Your task to perform on an android device: Clear the shopping cart on ebay. Search for macbook pro on ebay, select the first entry, add it to the cart, then select checkout. Image 0: 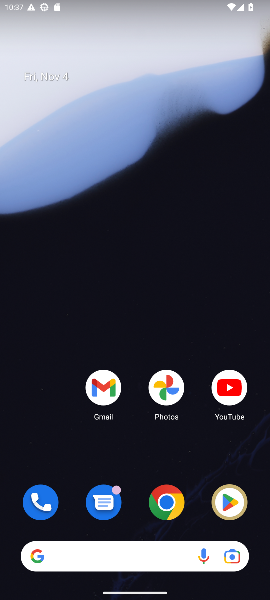
Step 0: drag from (150, 455) to (129, 69)
Your task to perform on an android device: Clear the shopping cart on ebay. Search for macbook pro on ebay, select the first entry, add it to the cart, then select checkout. Image 1: 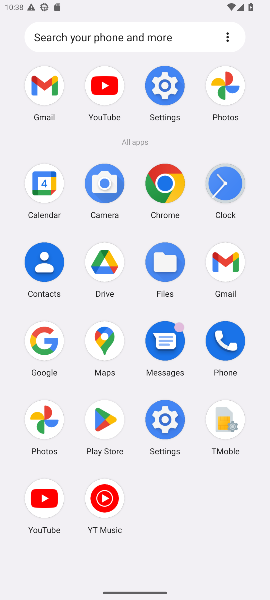
Step 1: click (164, 181)
Your task to perform on an android device: Clear the shopping cart on ebay. Search for macbook pro on ebay, select the first entry, add it to the cart, then select checkout. Image 2: 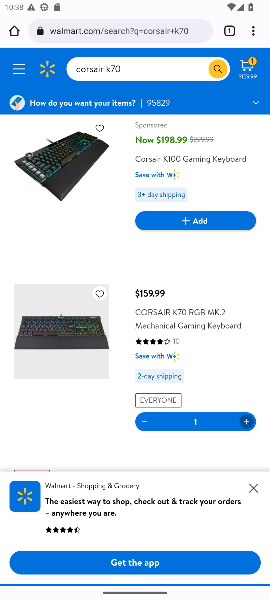
Step 2: click (175, 31)
Your task to perform on an android device: Clear the shopping cart on ebay. Search for macbook pro on ebay, select the first entry, add it to the cart, then select checkout. Image 3: 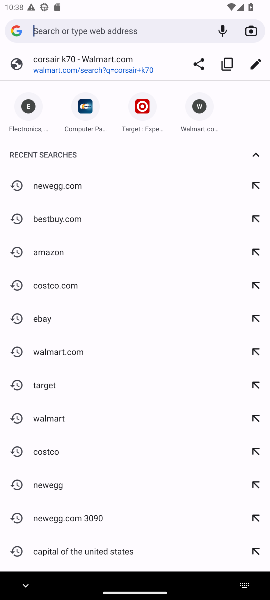
Step 3: type "ebay.com"
Your task to perform on an android device: Clear the shopping cart on ebay. Search for macbook pro on ebay, select the first entry, add it to the cart, then select checkout. Image 4: 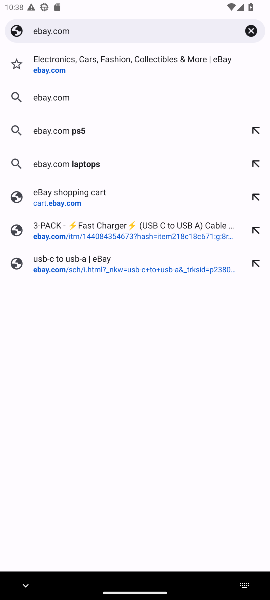
Step 4: press enter
Your task to perform on an android device: Clear the shopping cart on ebay. Search for macbook pro on ebay, select the first entry, add it to the cart, then select checkout. Image 5: 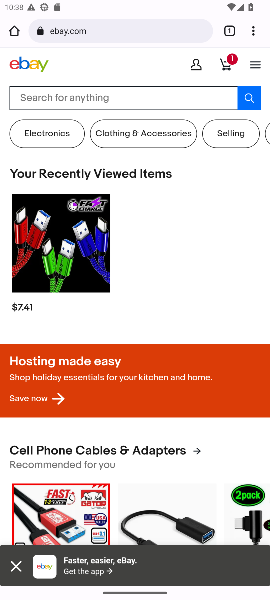
Step 5: click (228, 60)
Your task to perform on an android device: Clear the shopping cart on ebay. Search for macbook pro on ebay, select the first entry, add it to the cart, then select checkout. Image 6: 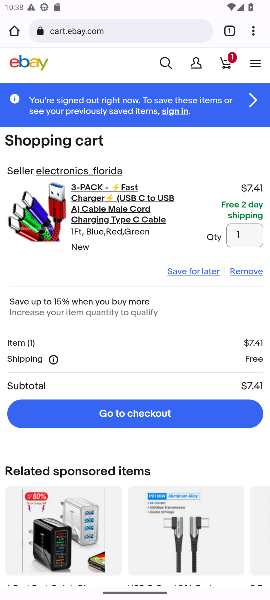
Step 6: click (254, 270)
Your task to perform on an android device: Clear the shopping cart on ebay. Search for macbook pro on ebay, select the first entry, add it to the cart, then select checkout. Image 7: 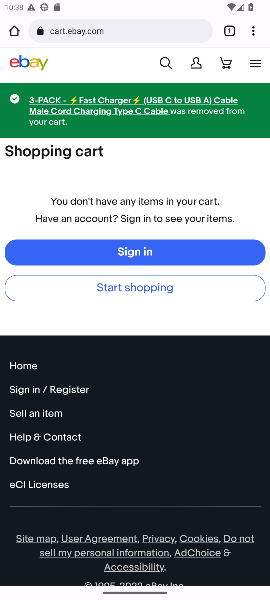
Step 7: click (165, 57)
Your task to perform on an android device: Clear the shopping cart on ebay. Search for macbook pro on ebay, select the first entry, add it to the cart, then select checkout. Image 8: 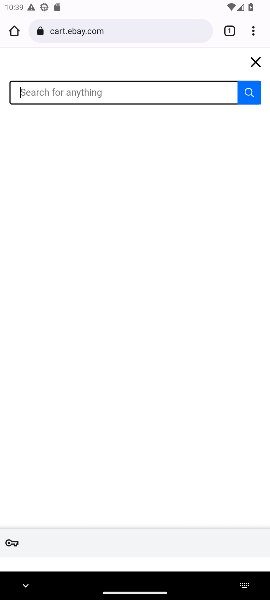
Step 8: type "macbook pro"
Your task to perform on an android device: Clear the shopping cart on ebay. Search for macbook pro on ebay, select the first entry, add it to the cart, then select checkout. Image 9: 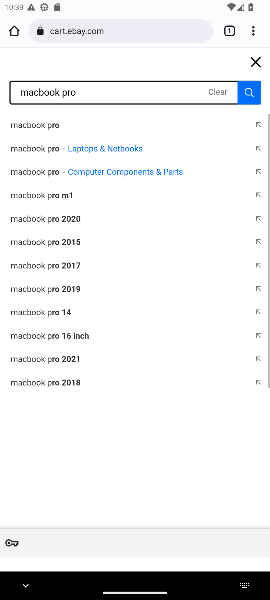
Step 9: press enter
Your task to perform on an android device: Clear the shopping cart on ebay. Search for macbook pro on ebay, select the first entry, add it to the cart, then select checkout. Image 10: 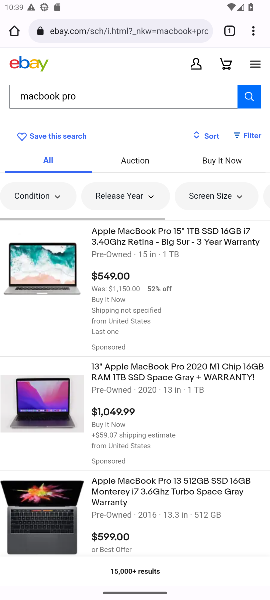
Step 10: click (193, 240)
Your task to perform on an android device: Clear the shopping cart on ebay. Search for macbook pro on ebay, select the first entry, add it to the cart, then select checkout. Image 11: 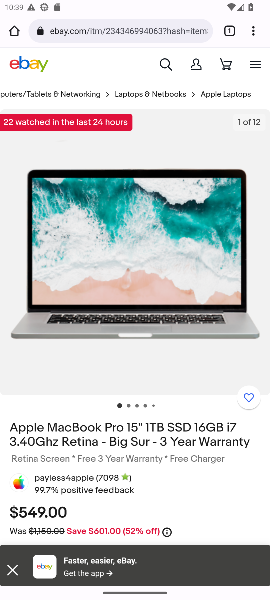
Step 11: drag from (174, 468) to (235, 132)
Your task to perform on an android device: Clear the shopping cart on ebay. Search for macbook pro on ebay, select the first entry, add it to the cart, then select checkout. Image 12: 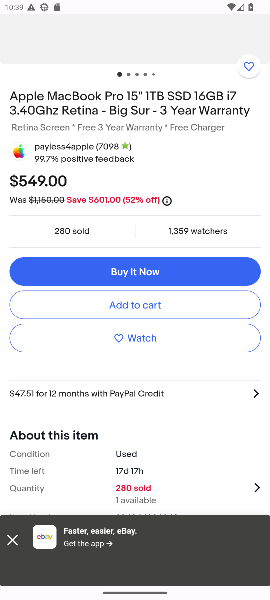
Step 12: click (188, 311)
Your task to perform on an android device: Clear the shopping cart on ebay. Search for macbook pro on ebay, select the first entry, add it to the cart, then select checkout. Image 13: 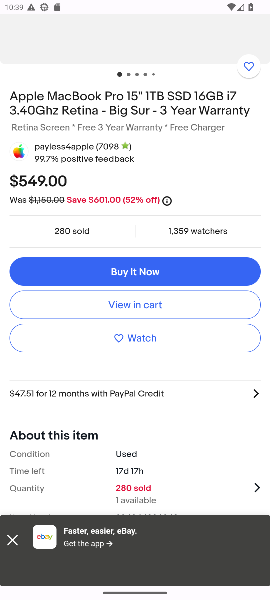
Step 13: click (191, 305)
Your task to perform on an android device: Clear the shopping cart on ebay. Search for macbook pro on ebay, select the first entry, add it to the cart, then select checkout. Image 14: 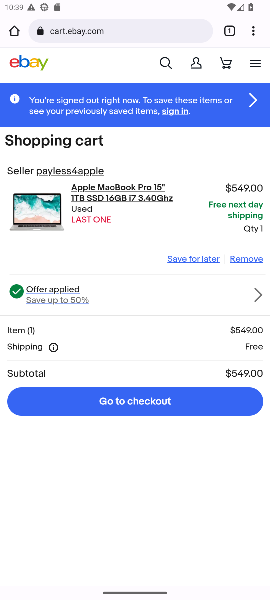
Step 14: click (177, 404)
Your task to perform on an android device: Clear the shopping cart on ebay. Search for macbook pro on ebay, select the first entry, add it to the cart, then select checkout. Image 15: 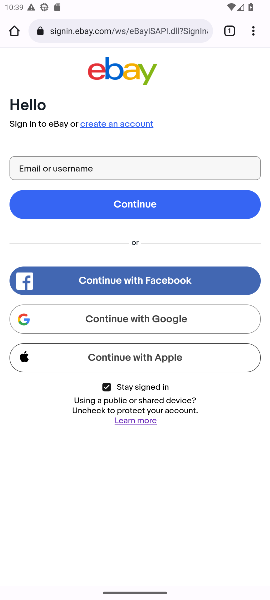
Step 15: task complete